Your task to perform on an android device: see sites visited before in the chrome app Image 0: 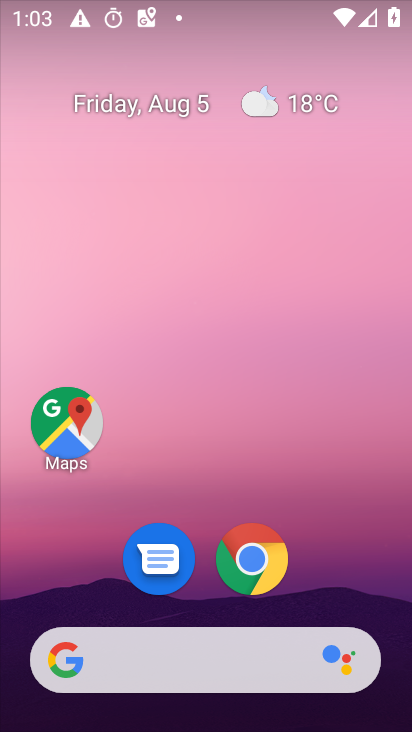
Step 0: click (237, 573)
Your task to perform on an android device: see sites visited before in the chrome app Image 1: 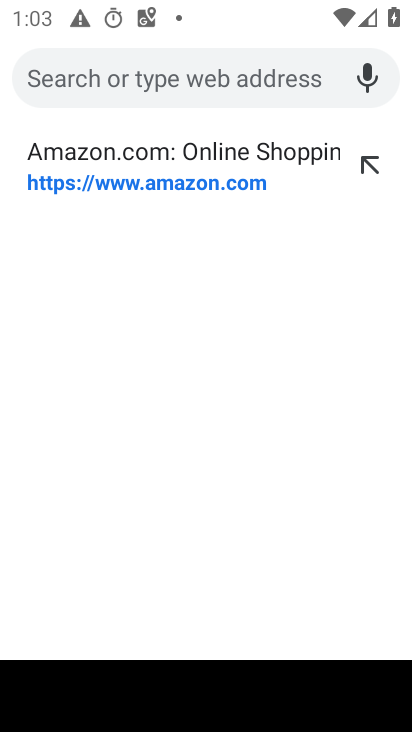
Step 1: click (180, 395)
Your task to perform on an android device: see sites visited before in the chrome app Image 2: 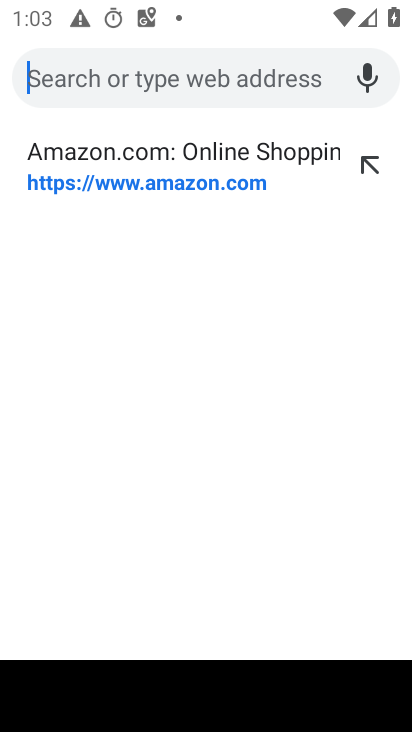
Step 2: click (194, 395)
Your task to perform on an android device: see sites visited before in the chrome app Image 3: 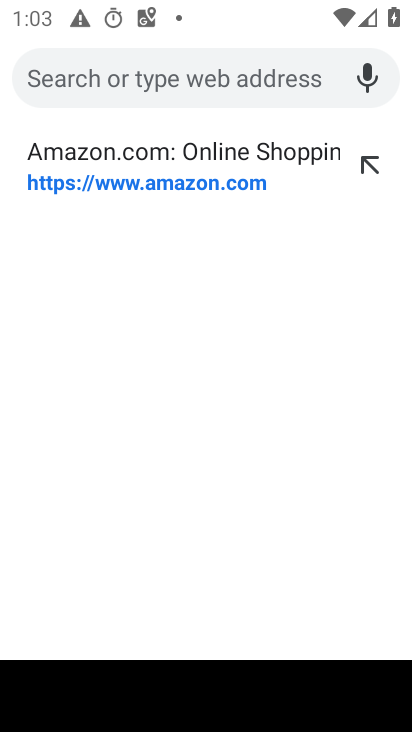
Step 3: task complete